Your task to perform on an android device: all mails in gmail Image 0: 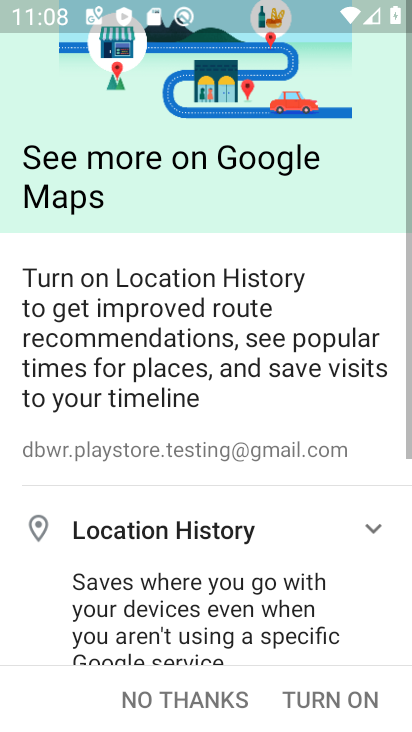
Step 0: press home button
Your task to perform on an android device: all mails in gmail Image 1: 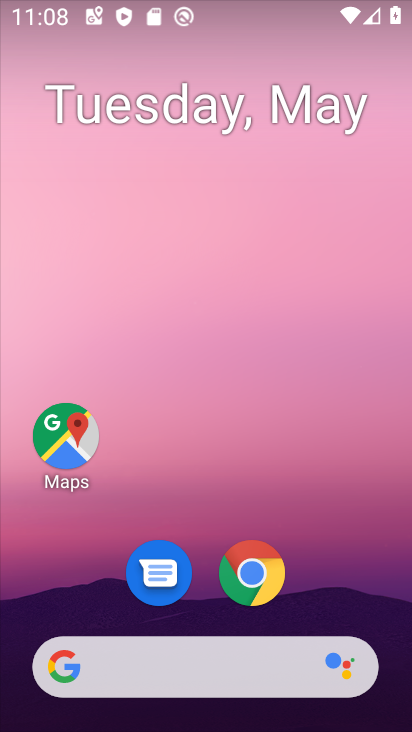
Step 1: drag from (314, 572) to (306, 247)
Your task to perform on an android device: all mails in gmail Image 2: 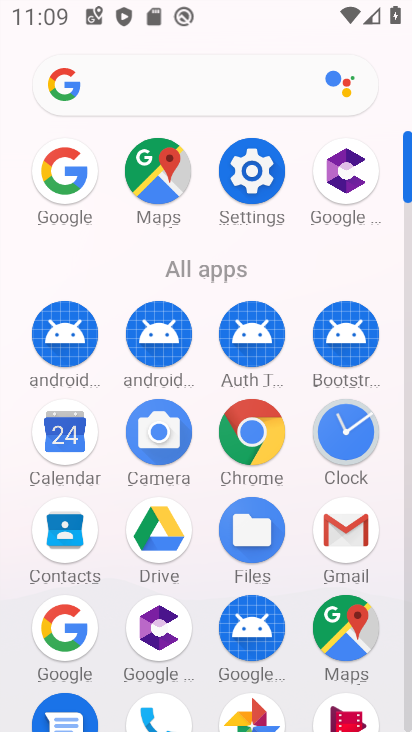
Step 2: click (347, 521)
Your task to perform on an android device: all mails in gmail Image 3: 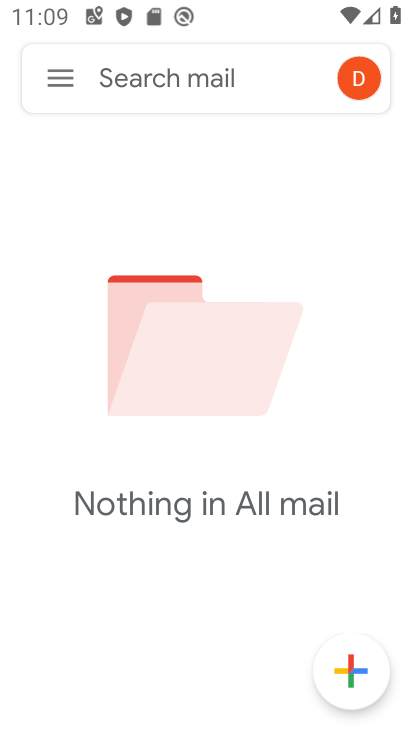
Step 3: click (55, 78)
Your task to perform on an android device: all mails in gmail Image 4: 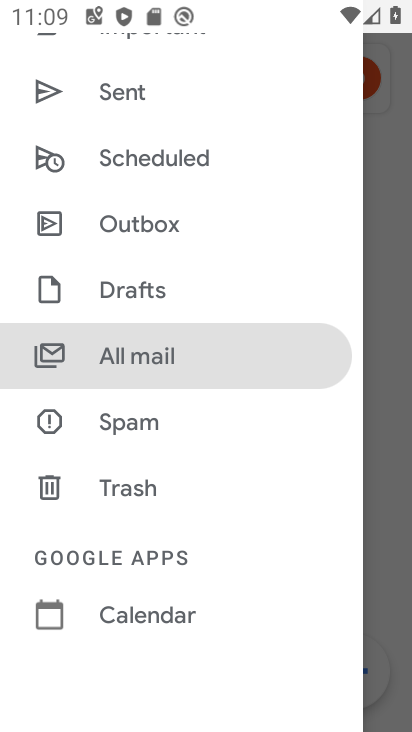
Step 4: drag from (190, 561) to (226, 130)
Your task to perform on an android device: all mails in gmail Image 5: 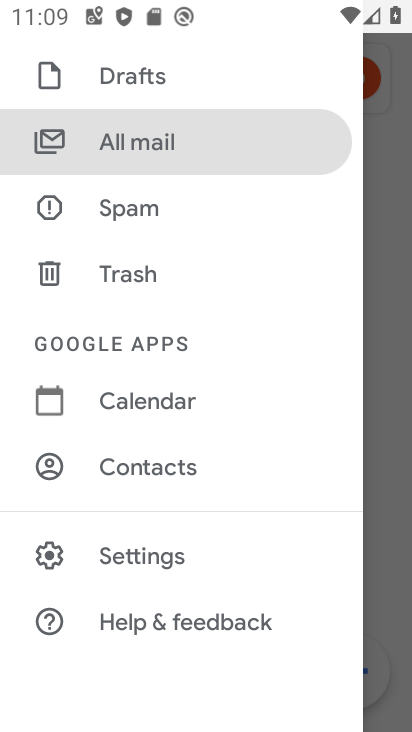
Step 5: click (146, 136)
Your task to perform on an android device: all mails in gmail Image 6: 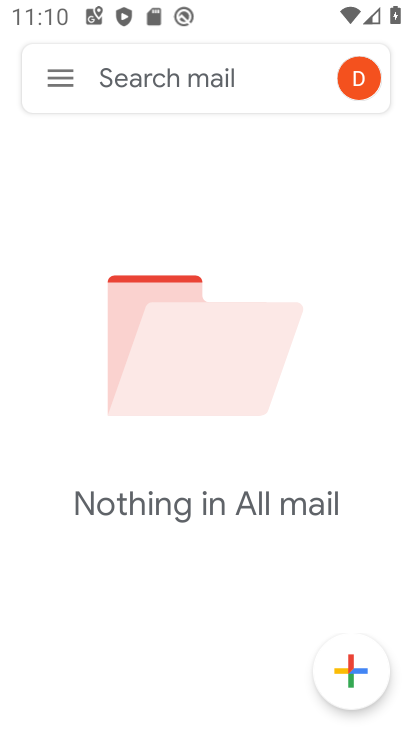
Step 6: task complete